Your task to perform on an android device: delete a single message in the gmail app Image 0: 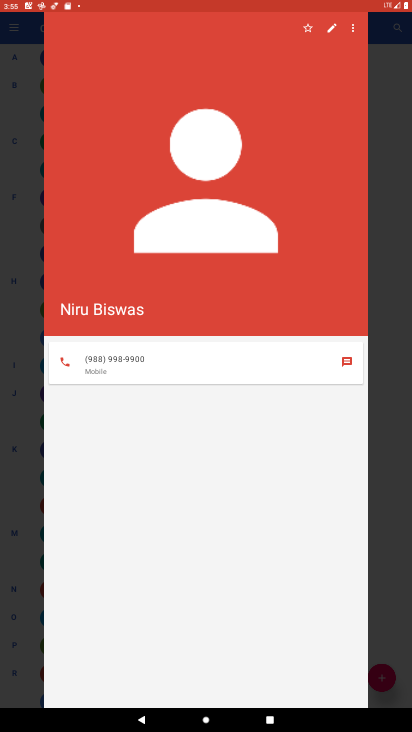
Step 0: press home button
Your task to perform on an android device: delete a single message in the gmail app Image 1: 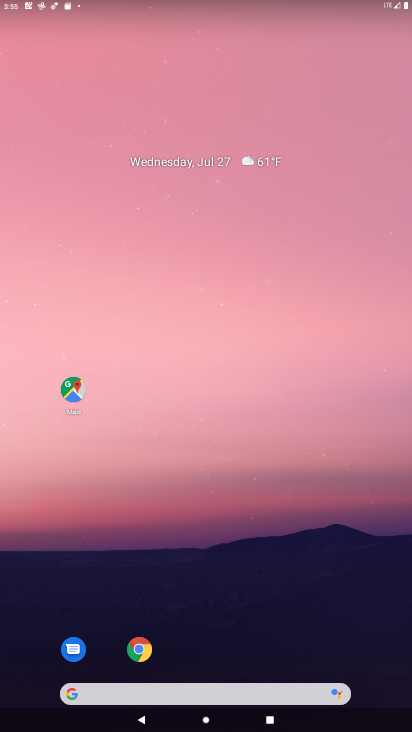
Step 1: drag from (181, 632) to (261, 98)
Your task to perform on an android device: delete a single message in the gmail app Image 2: 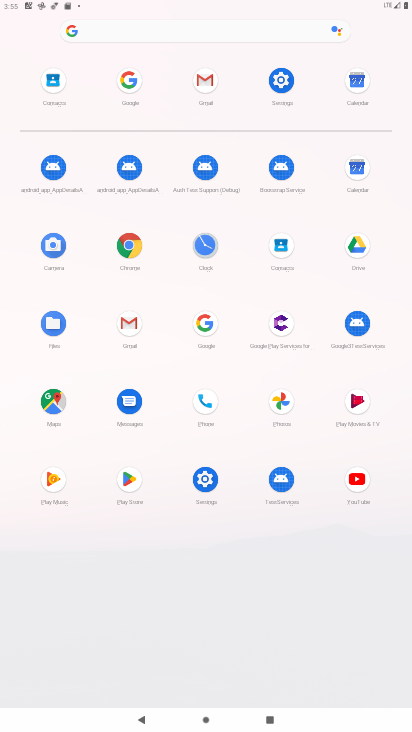
Step 2: click (202, 93)
Your task to perform on an android device: delete a single message in the gmail app Image 3: 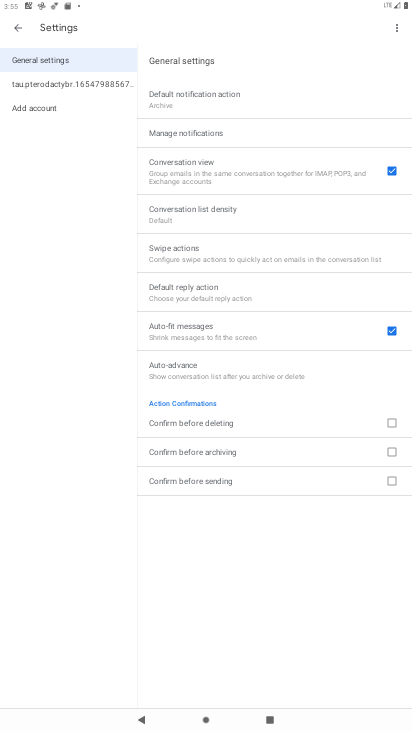
Step 3: click (60, 84)
Your task to perform on an android device: delete a single message in the gmail app Image 4: 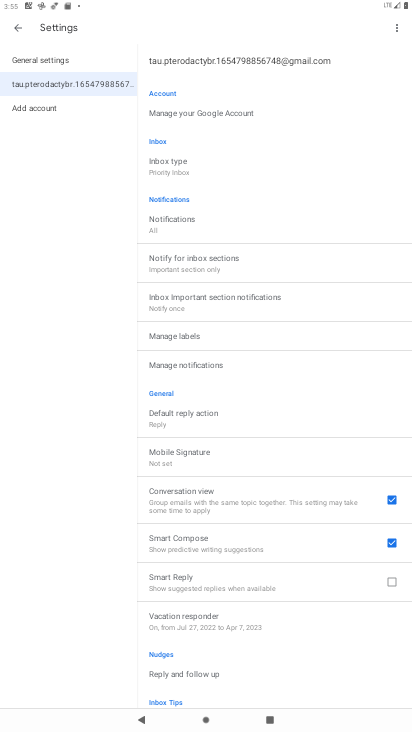
Step 4: press back button
Your task to perform on an android device: delete a single message in the gmail app Image 5: 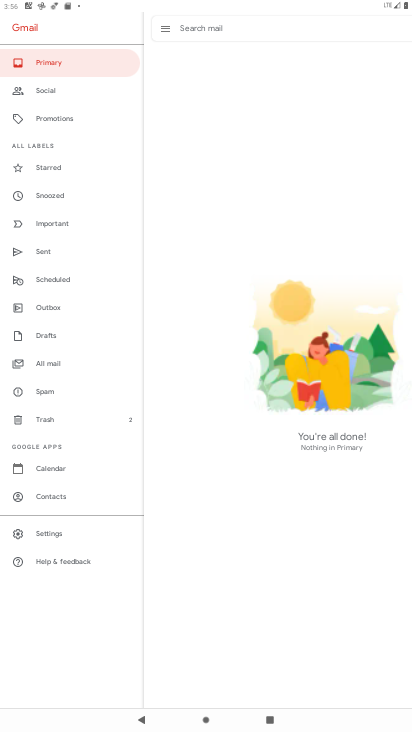
Step 5: press back button
Your task to perform on an android device: delete a single message in the gmail app Image 6: 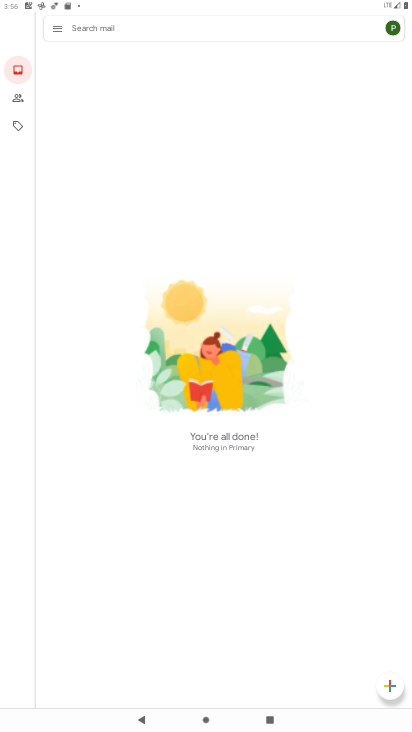
Step 6: click (57, 30)
Your task to perform on an android device: delete a single message in the gmail app Image 7: 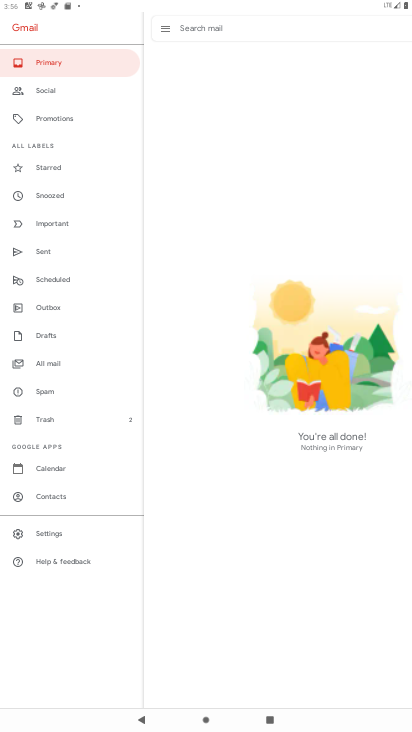
Step 7: click (57, 365)
Your task to perform on an android device: delete a single message in the gmail app Image 8: 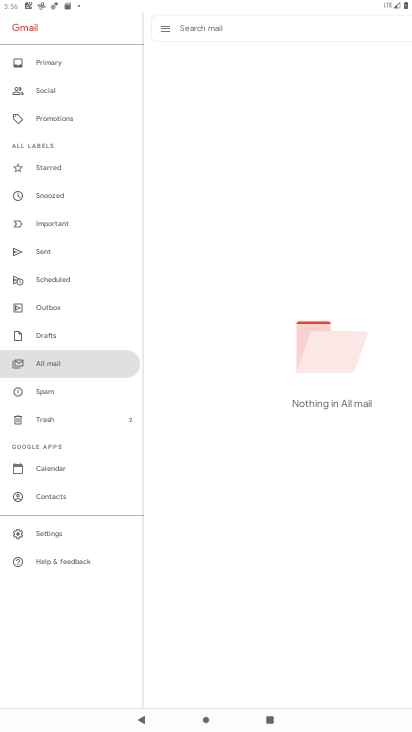
Step 8: task complete